Your task to perform on an android device: Go to display settings Image 0: 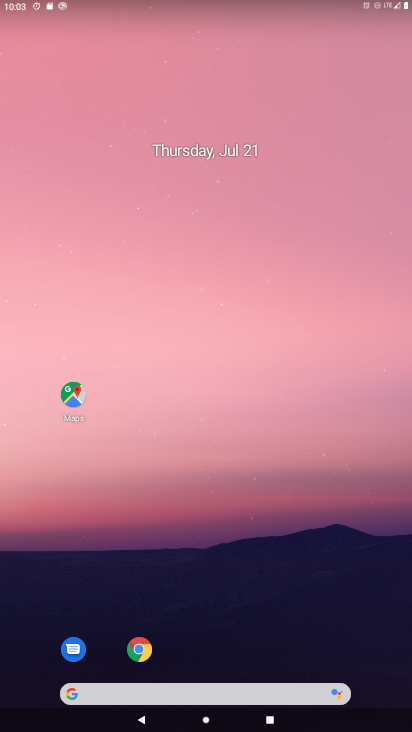
Step 0: drag from (320, 593) to (137, 30)
Your task to perform on an android device: Go to display settings Image 1: 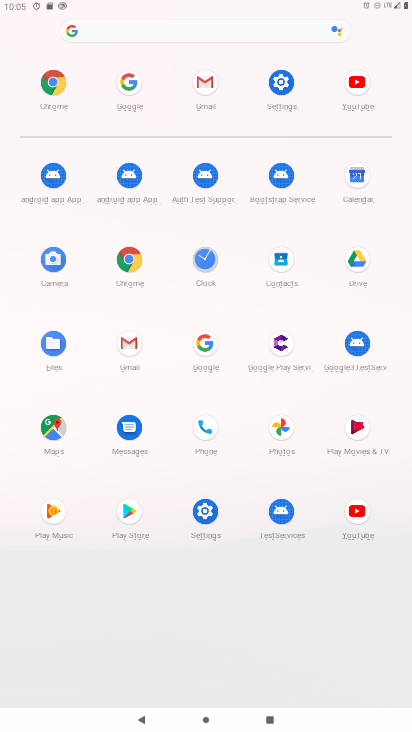
Step 1: click (201, 517)
Your task to perform on an android device: Go to display settings Image 2: 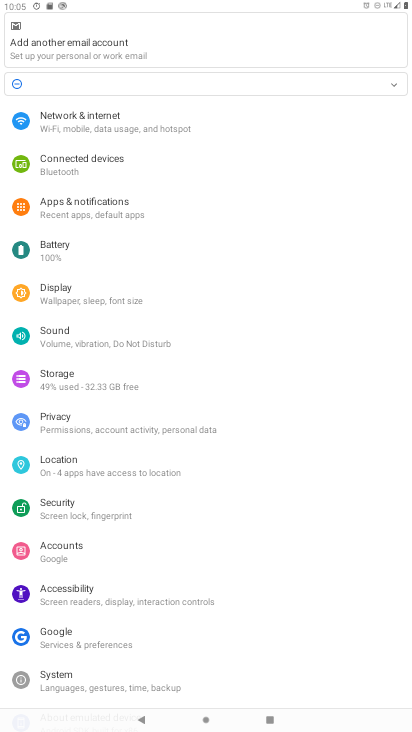
Step 2: click (87, 303)
Your task to perform on an android device: Go to display settings Image 3: 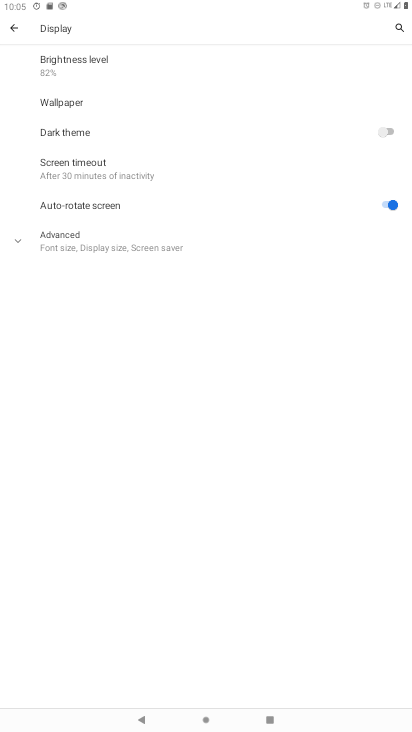
Step 3: task complete